Your task to perform on an android device: turn on priority inbox in the gmail app Image 0: 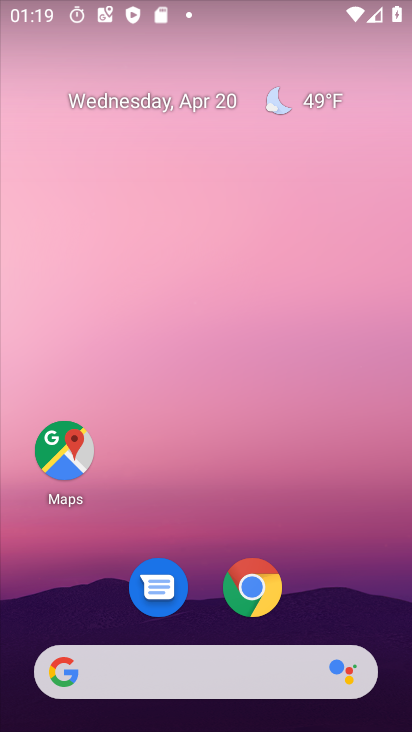
Step 0: drag from (377, 562) to (349, 1)
Your task to perform on an android device: turn on priority inbox in the gmail app Image 1: 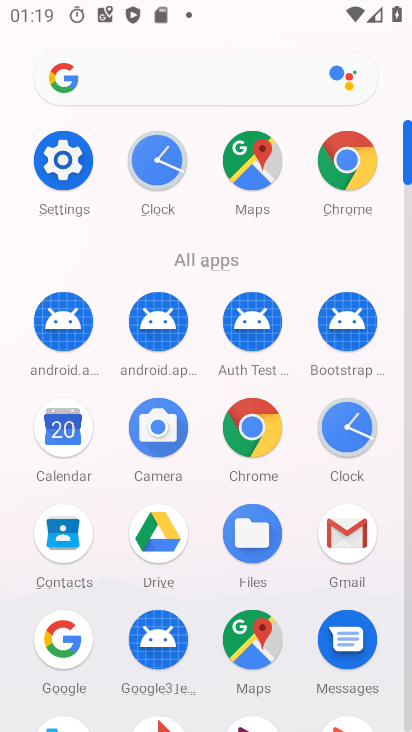
Step 1: click (351, 537)
Your task to perform on an android device: turn on priority inbox in the gmail app Image 2: 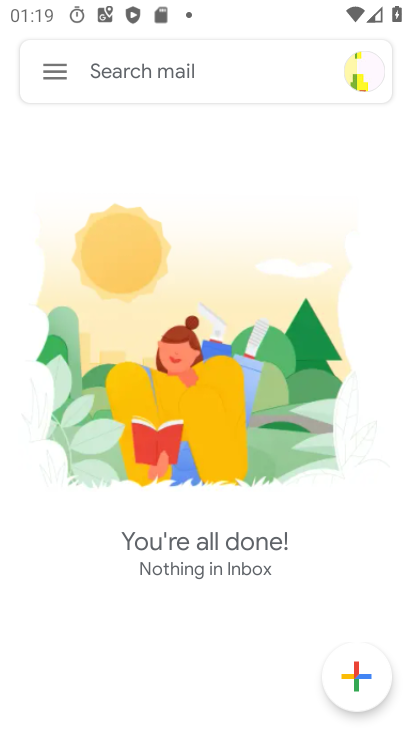
Step 2: click (56, 73)
Your task to perform on an android device: turn on priority inbox in the gmail app Image 3: 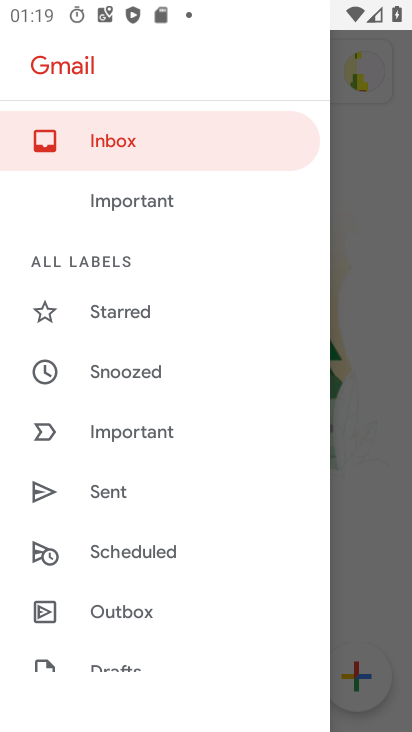
Step 3: drag from (295, 555) to (279, 258)
Your task to perform on an android device: turn on priority inbox in the gmail app Image 4: 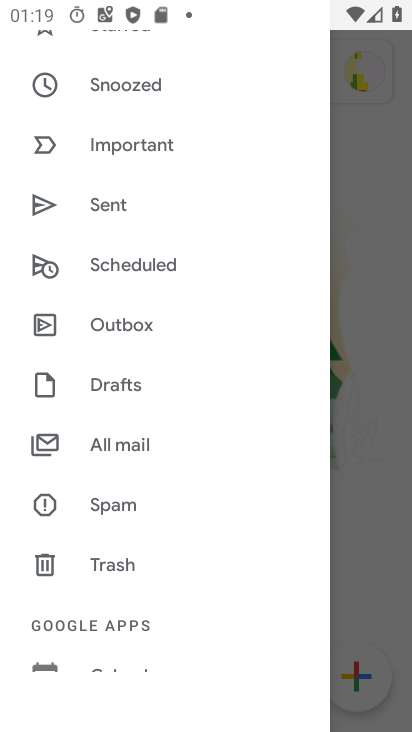
Step 4: drag from (253, 572) to (258, 132)
Your task to perform on an android device: turn on priority inbox in the gmail app Image 5: 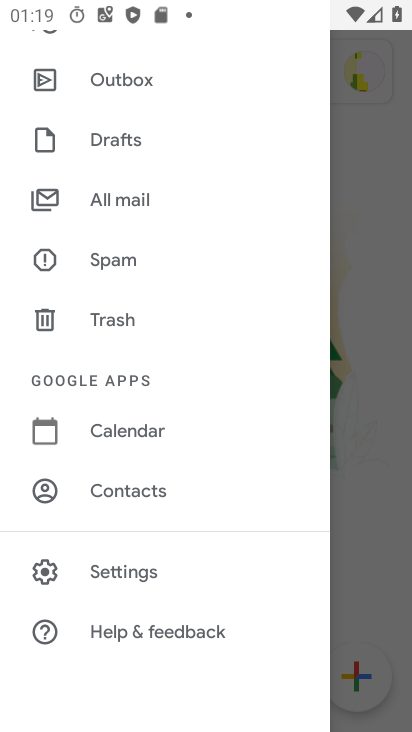
Step 5: click (134, 567)
Your task to perform on an android device: turn on priority inbox in the gmail app Image 6: 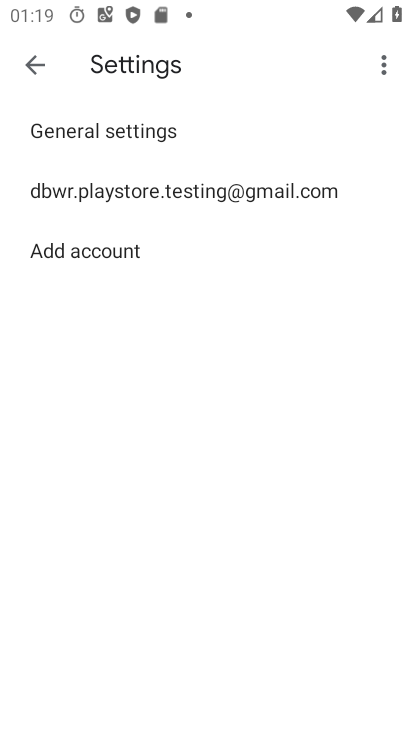
Step 6: click (116, 197)
Your task to perform on an android device: turn on priority inbox in the gmail app Image 7: 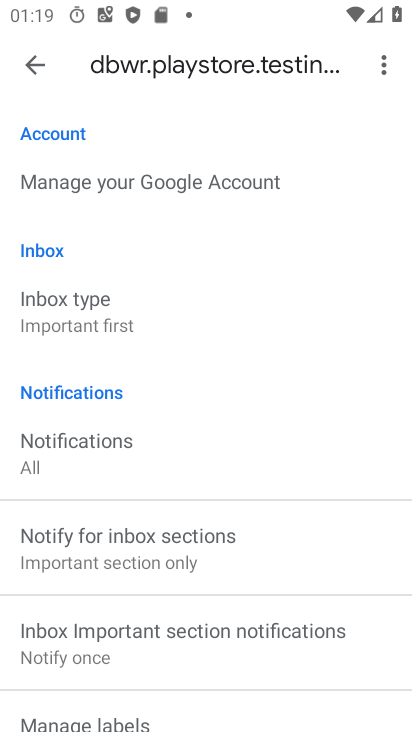
Step 7: click (72, 324)
Your task to perform on an android device: turn on priority inbox in the gmail app Image 8: 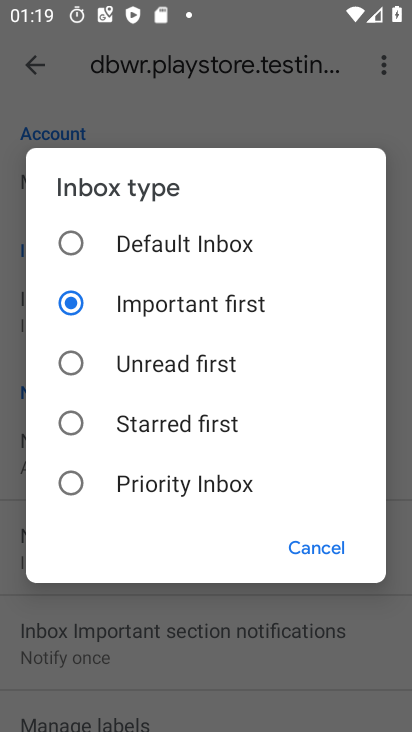
Step 8: click (70, 476)
Your task to perform on an android device: turn on priority inbox in the gmail app Image 9: 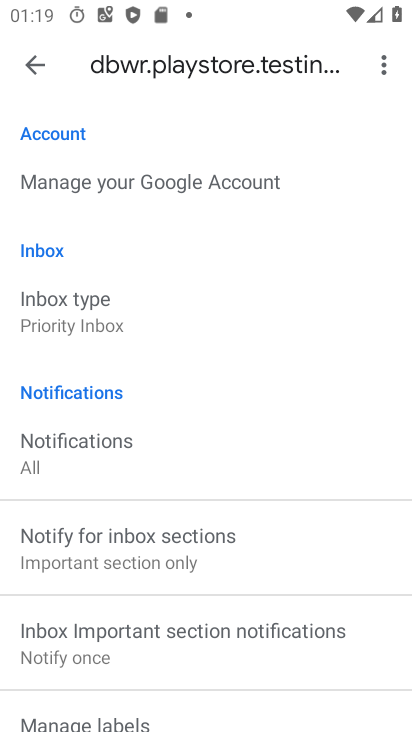
Step 9: task complete